Your task to perform on an android device: change alarm snooze length Image 0: 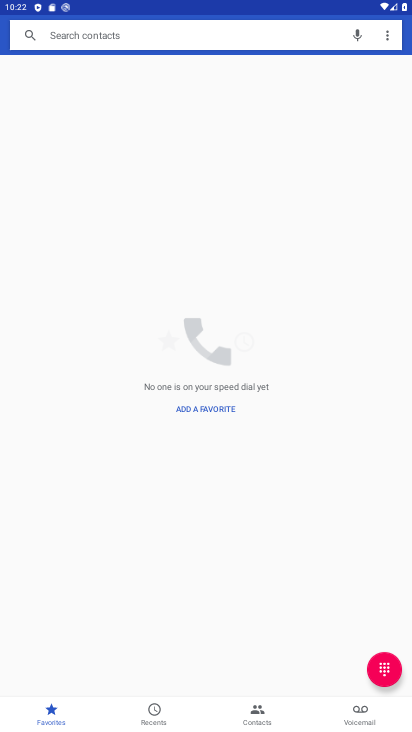
Step 0: press home button
Your task to perform on an android device: change alarm snooze length Image 1: 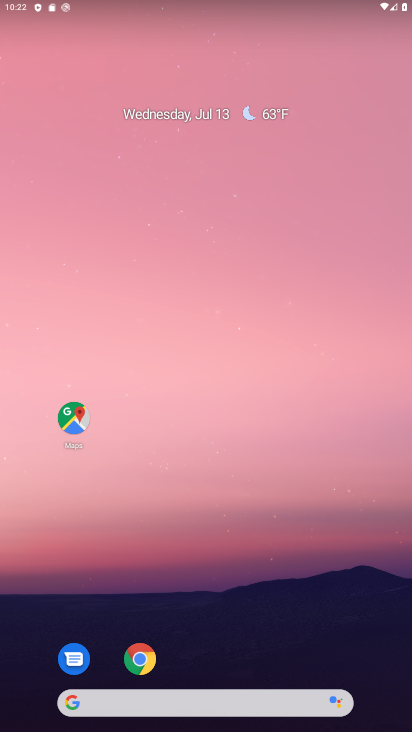
Step 1: drag from (349, 587) to (342, 101)
Your task to perform on an android device: change alarm snooze length Image 2: 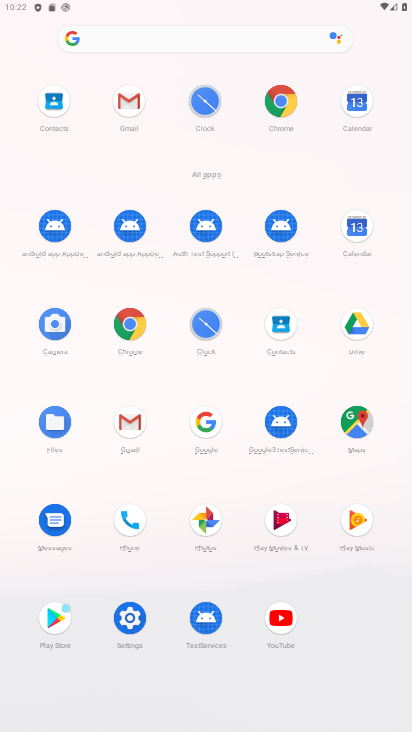
Step 2: click (198, 329)
Your task to perform on an android device: change alarm snooze length Image 3: 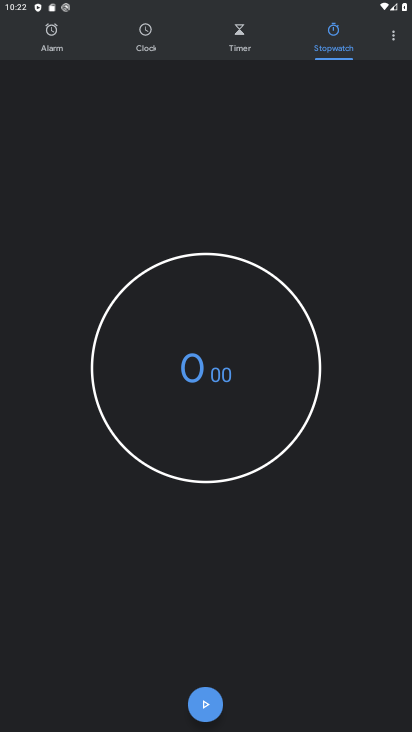
Step 3: click (391, 46)
Your task to perform on an android device: change alarm snooze length Image 4: 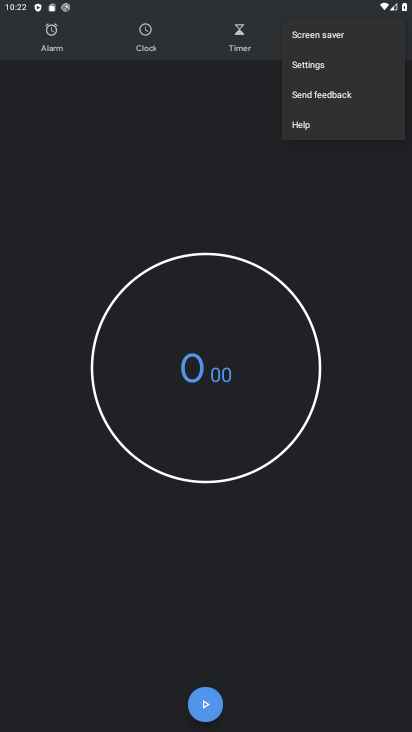
Step 4: click (315, 68)
Your task to perform on an android device: change alarm snooze length Image 5: 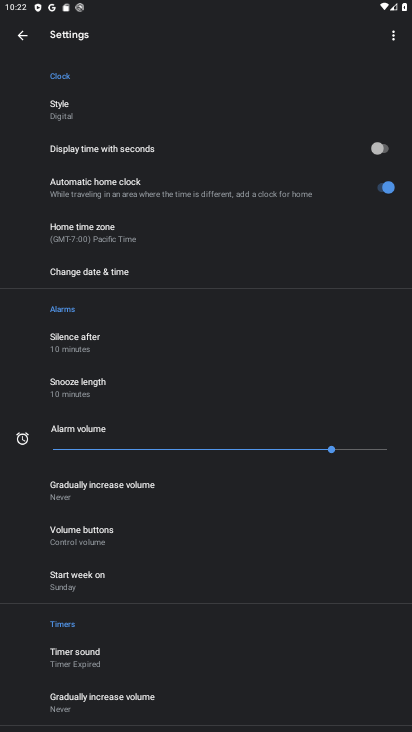
Step 5: click (83, 386)
Your task to perform on an android device: change alarm snooze length Image 6: 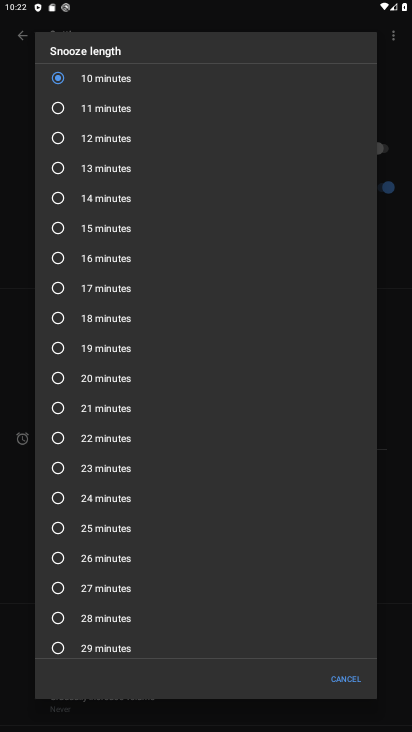
Step 6: click (127, 110)
Your task to perform on an android device: change alarm snooze length Image 7: 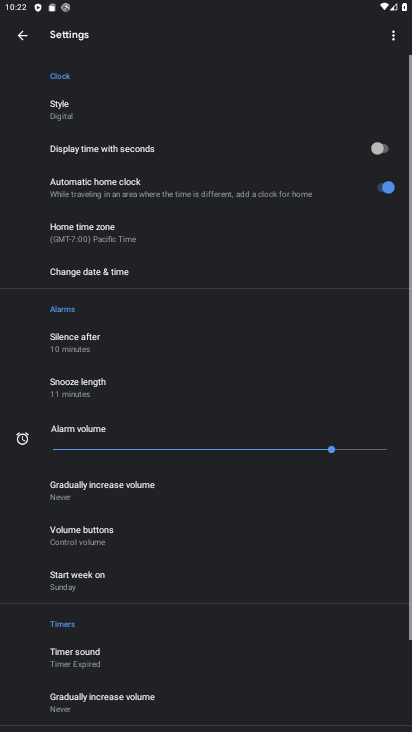
Step 7: task complete